Your task to perform on an android device: add a label to a message in the gmail app Image 0: 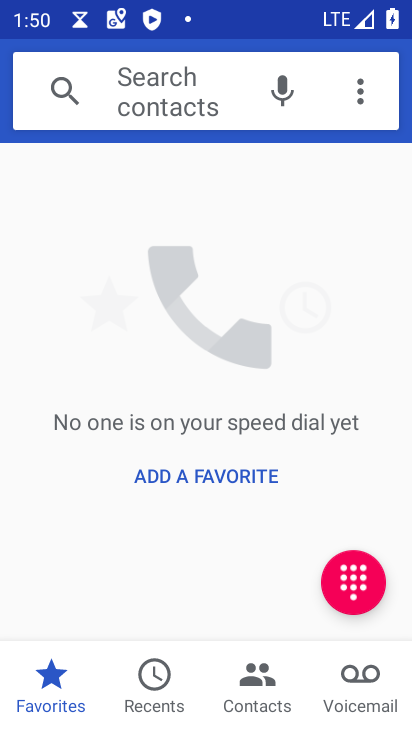
Step 0: press home button
Your task to perform on an android device: add a label to a message in the gmail app Image 1: 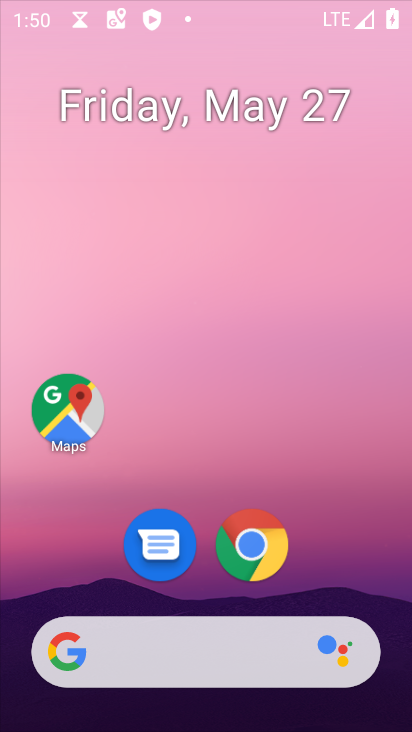
Step 1: drag from (338, 533) to (157, 43)
Your task to perform on an android device: add a label to a message in the gmail app Image 2: 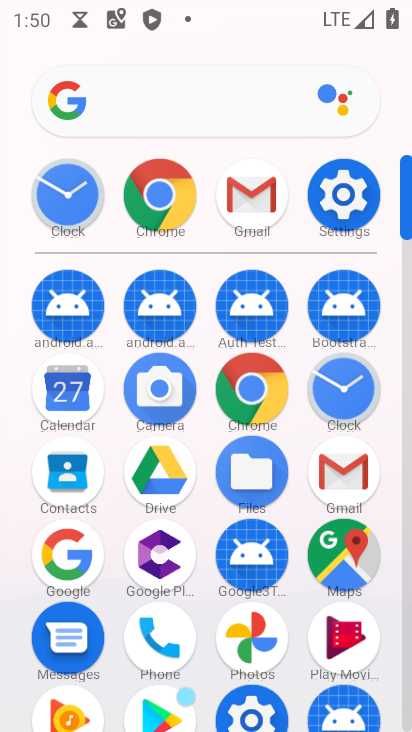
Step 2: click (349, 471)
Your task to perform on an android device: add a label to a message in the gmail app Image 3: 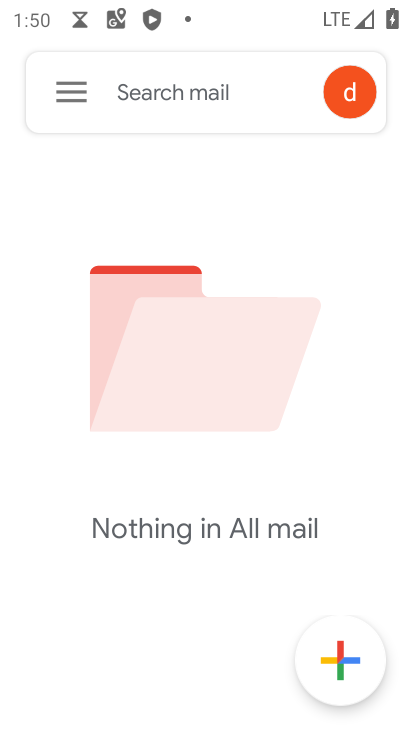
Step 3: click (65, 94)
Your task to perform on an android device: add a label to a message in the gmail app Image 4: 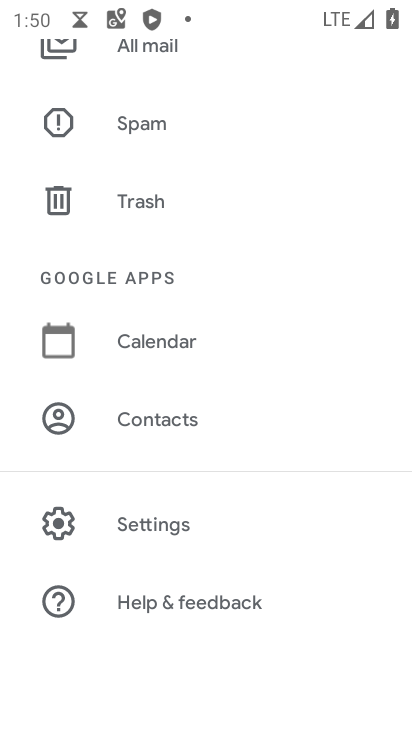
Step 4: drag from (219, 109) to (222, 731)
Your task to perform on an android device: add a label to a message in the gmail app Image 5: 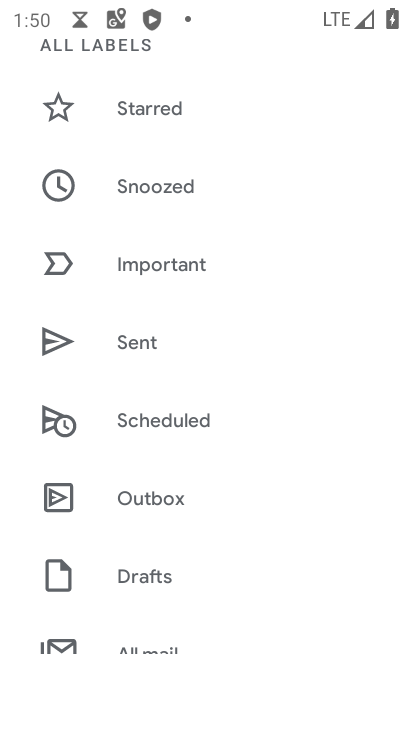
Step 5: drag from (228, 125) to (254, 691)
Your task to perform on an android device: add a label to a message in the gmail app Image 6: 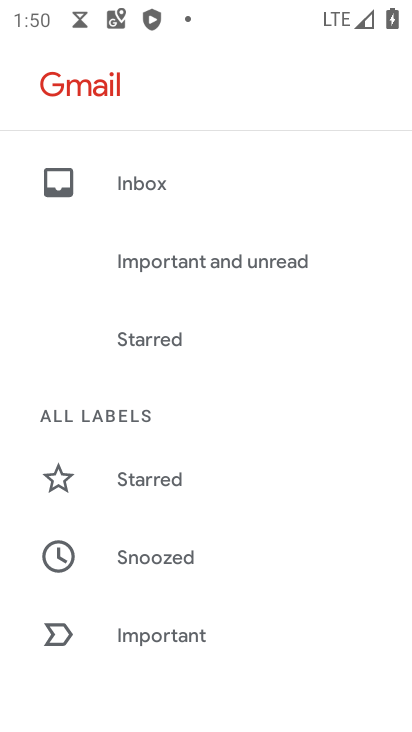
Step 6: click (181, 180)
Your task to perform on an android device: add a label to a message in the gmail app Image 7: 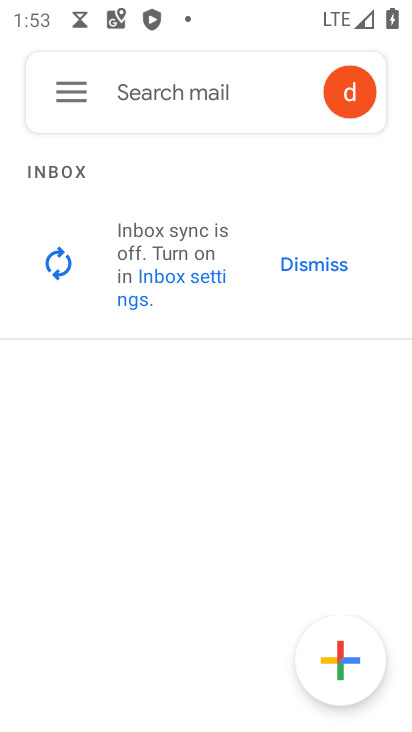
Step 7: task complete